Your task to perform on an android device: open app "WhatsApp Messenger" Image 0: 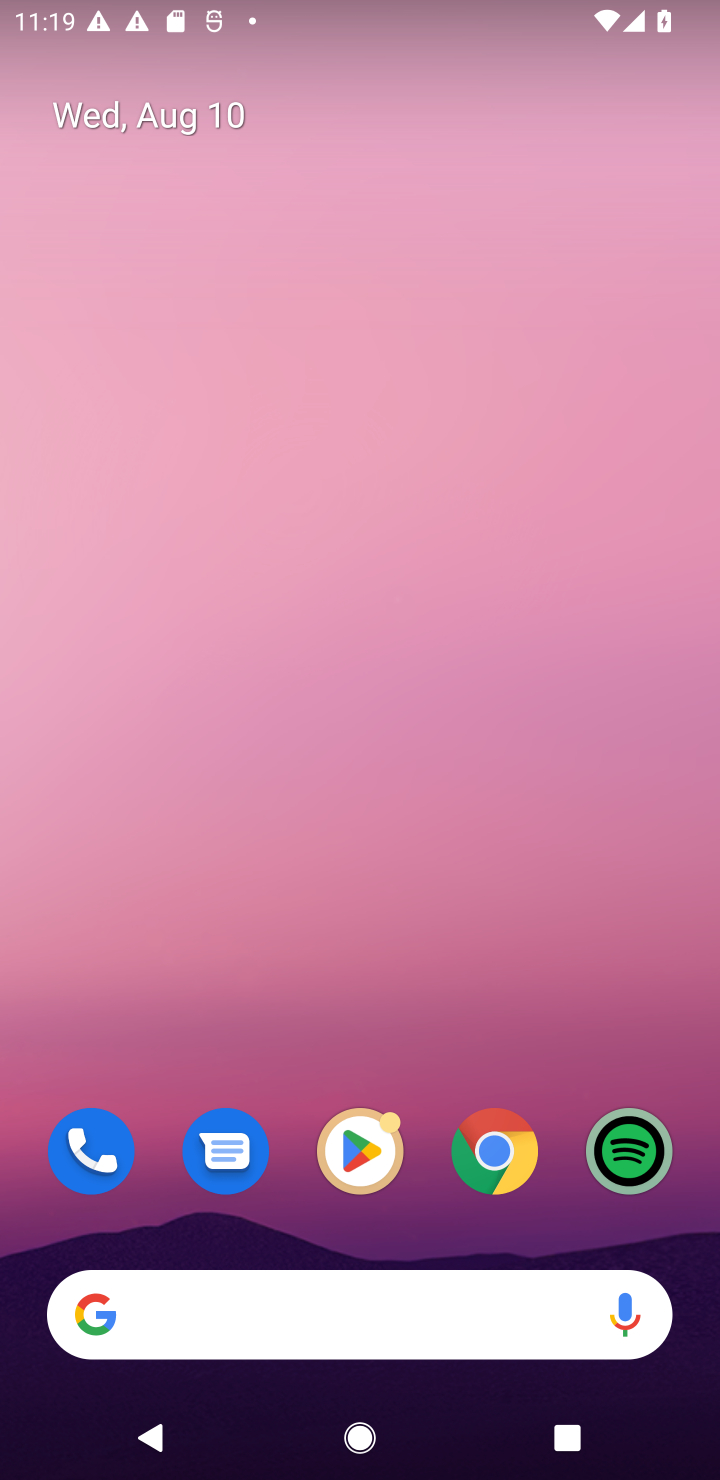
Step 0: click (351, 1145)
Your task to perform on an android device: open app "WhatsApp Messenger" Image 1: 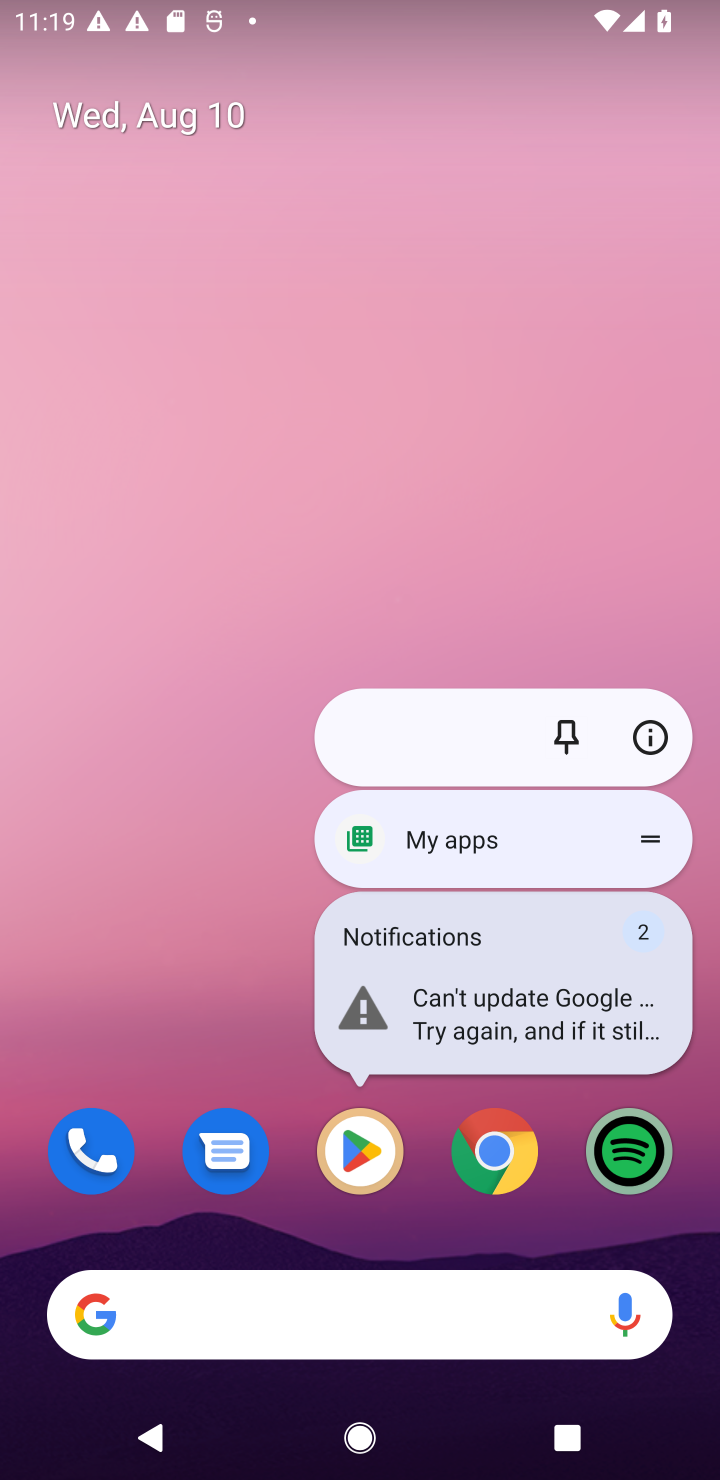
Step 1: click (358, 1141)
Your task to perform on an android device: open app "WhatsApp Messenger" Image 2: 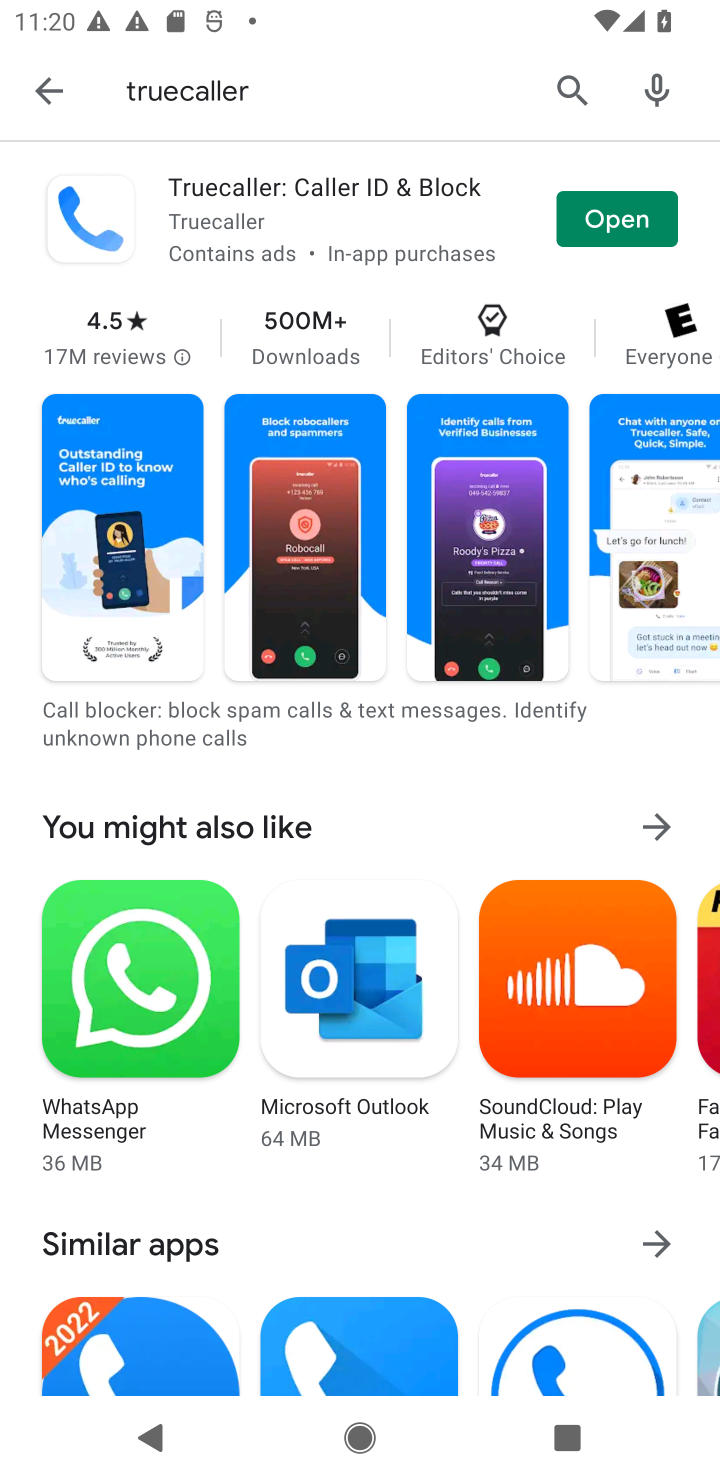
Step 2: click (568, 90)
Your task to perform on an android device: open app "WhatsApp Messenger" Image 3: 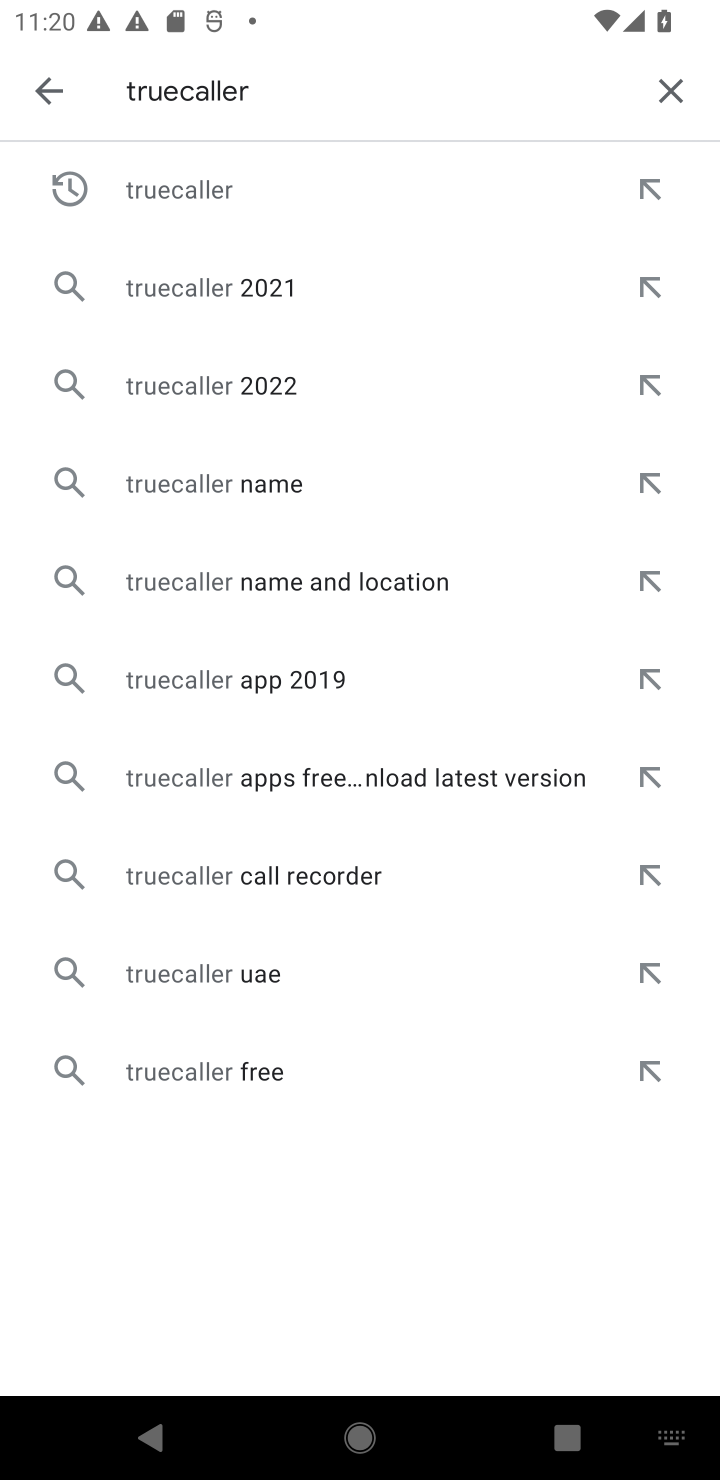
Step 3: click (670, 78)
Your task to perform on an android device: open app "WhatsApp Messenger" Image 4: 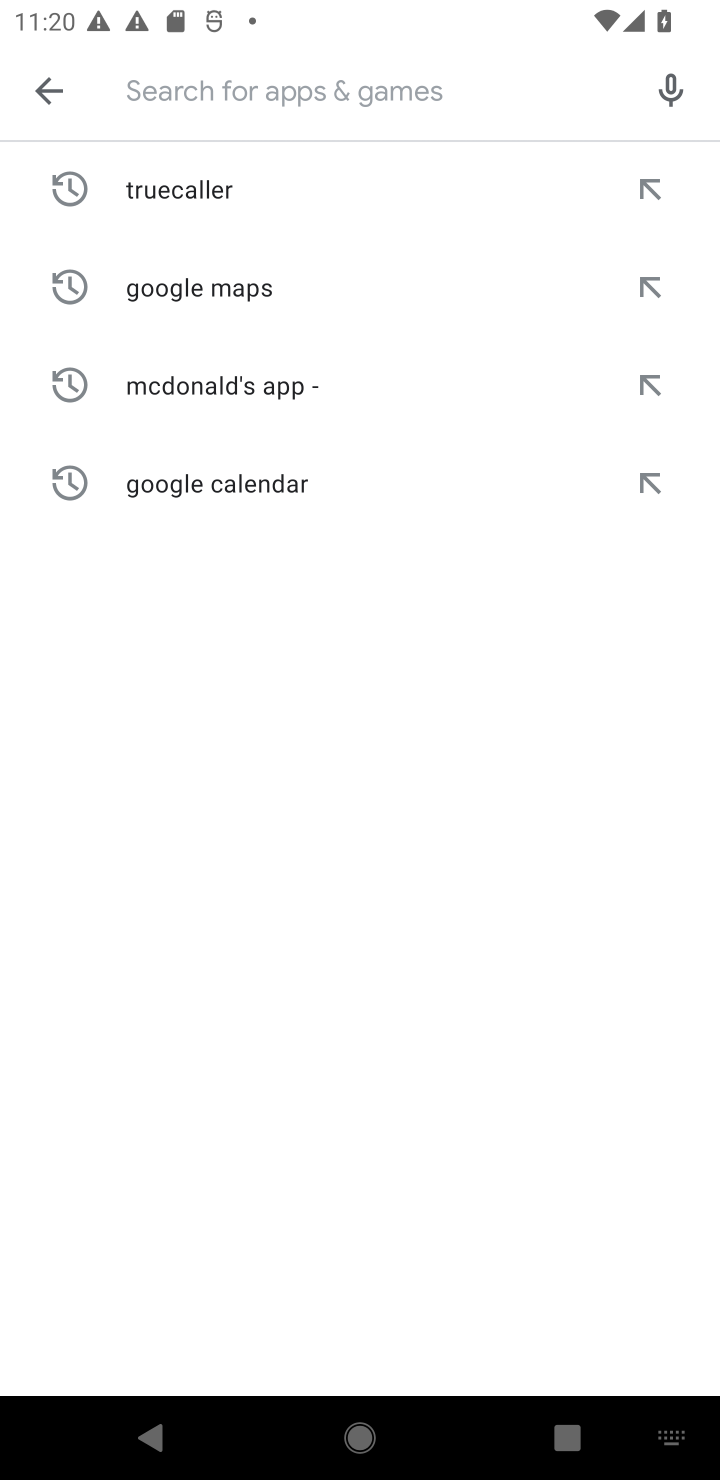
Step 4: type "WhatsApp Messenger"
Your task to perform on an android device: open app "WhatsApp Messenger" Image 5: 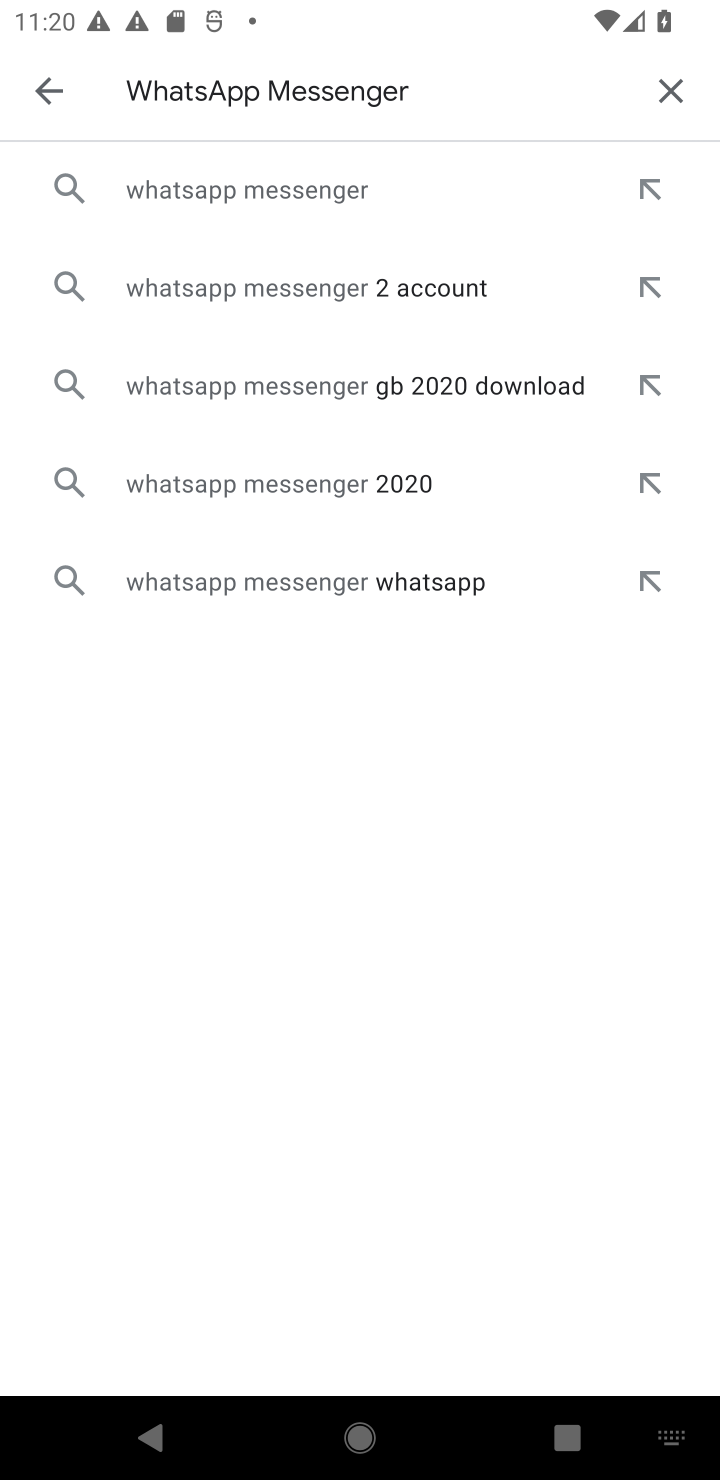
Step 5: click (285, 170)
Your task to perform on an android device: open app "WhatsApp Messenger" Image 6: 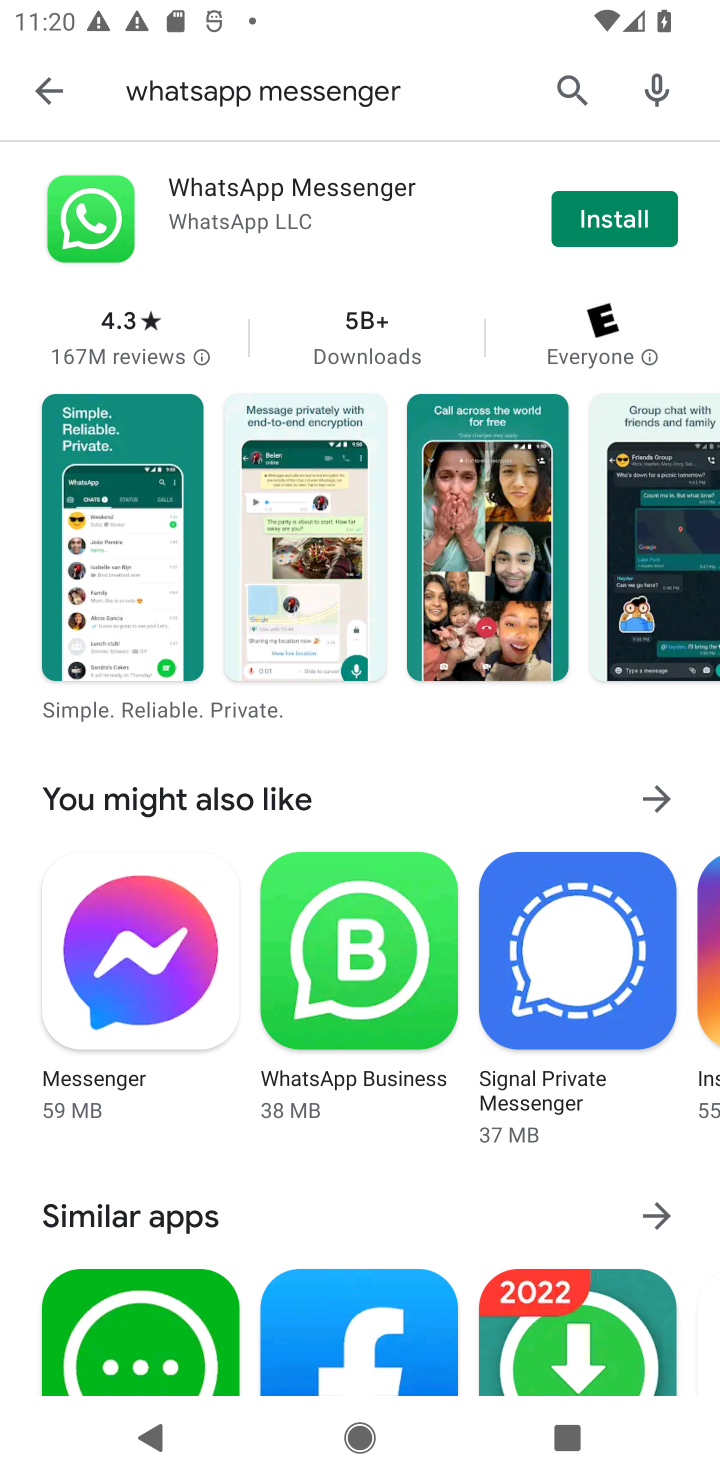
Step 6: task complete